Your task to perform on an android device: open app "Lyft - Rideshare, Bikes, Scooters & Transit" (install if not already installed) and go to login screen Image 0: 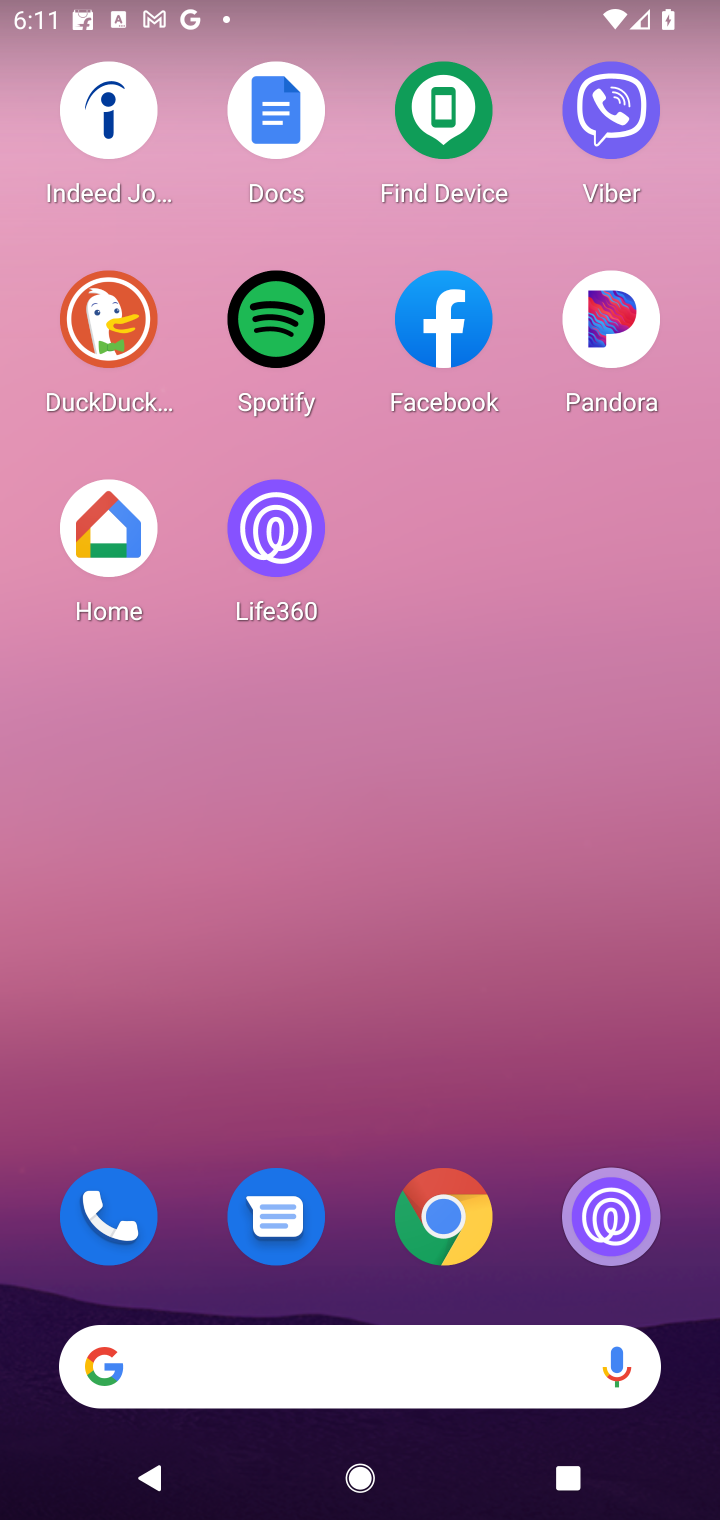
Step 0: drag from (405, 844) to (419, 117)
Your task to perform on an android device: open app "Lyft - Rideshare, Bikes, Scooters & Transit" (install if not already installed) and go to login screen Image 1: 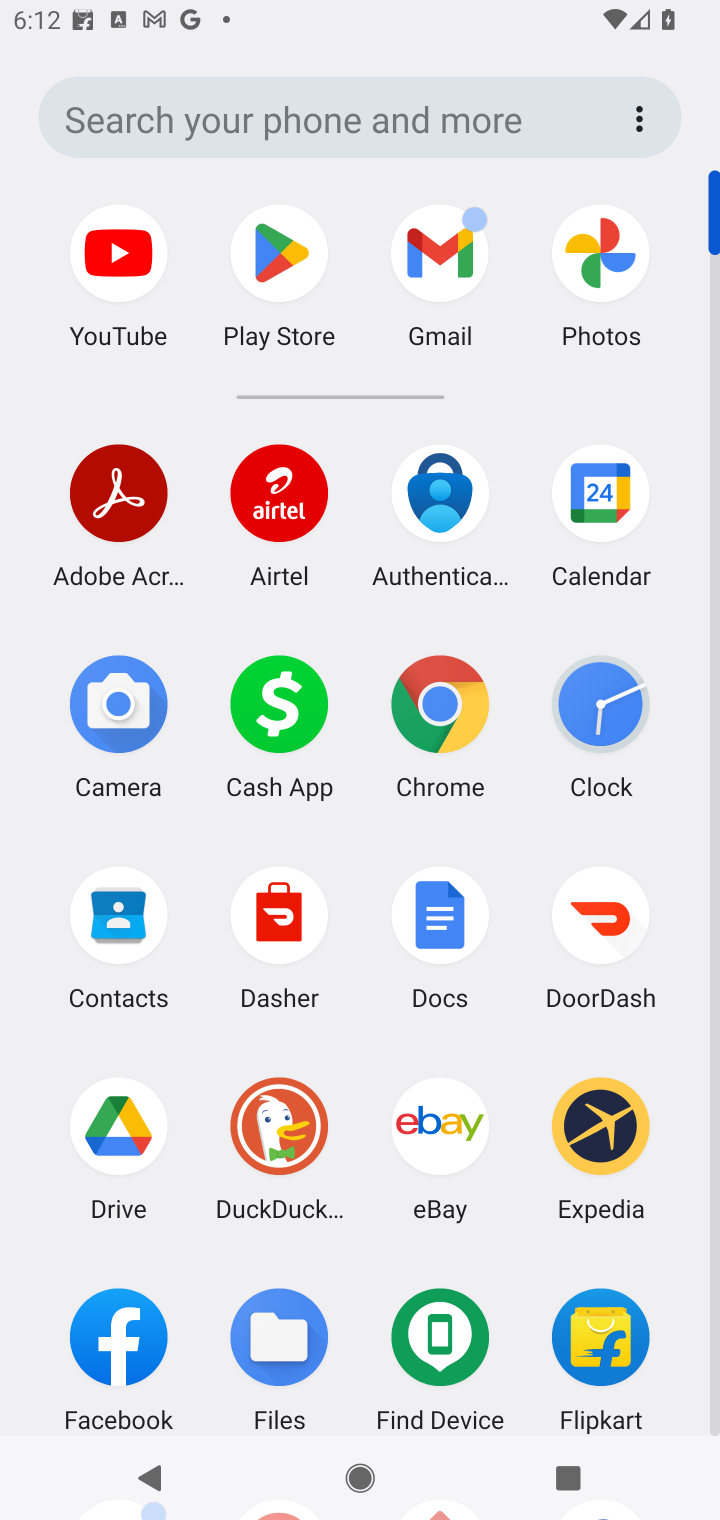
Step 1: click (253, 256)
Your task to perform on an android device: open app "Lyft - Rideshare, Bikes, Scooters & Transit" (install if not already installed) and go to login screen Image 2: 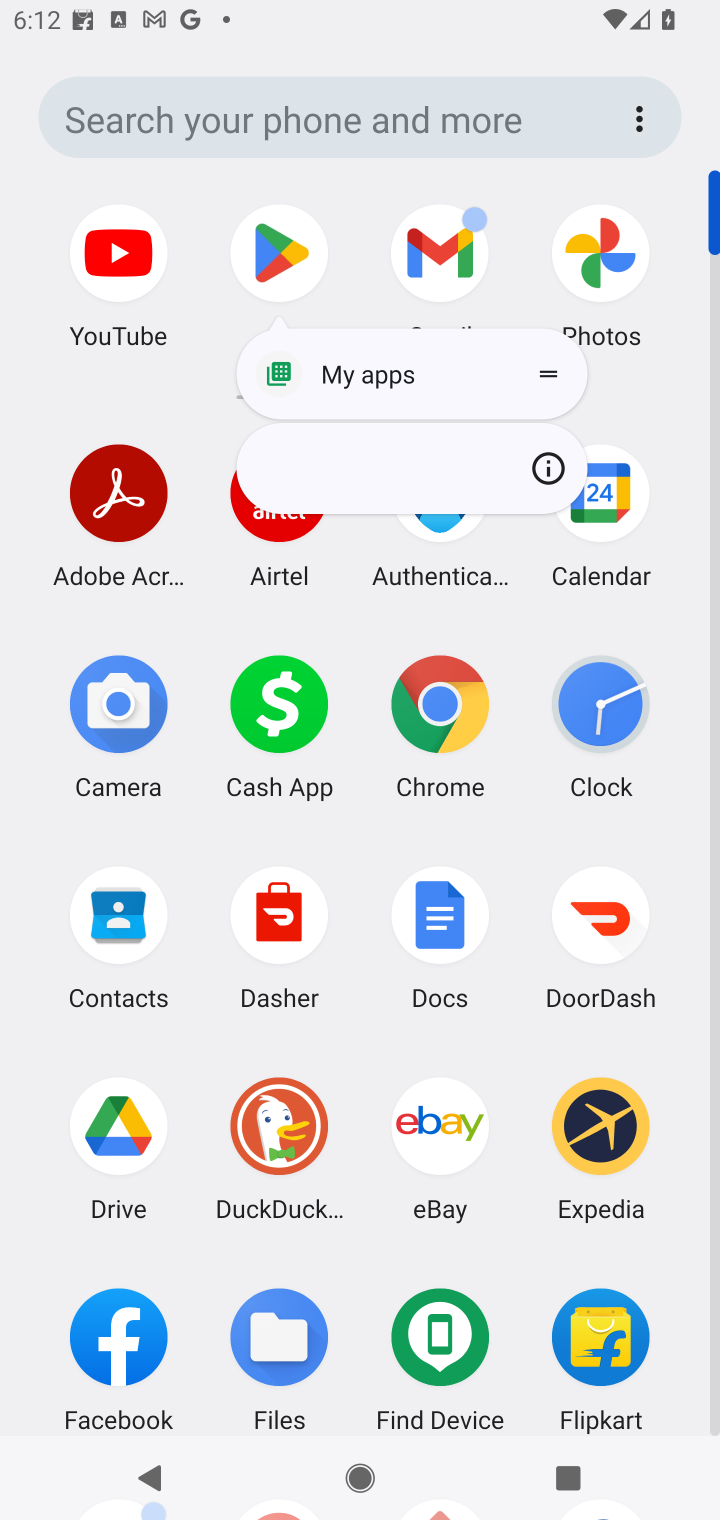
Step 2: click (272, 266)
Your task to perform on an android device: open app "Lyft - Rideshare, Bikes, Scooters & Transit" (install if not already installed) and go to login screen Image 3: 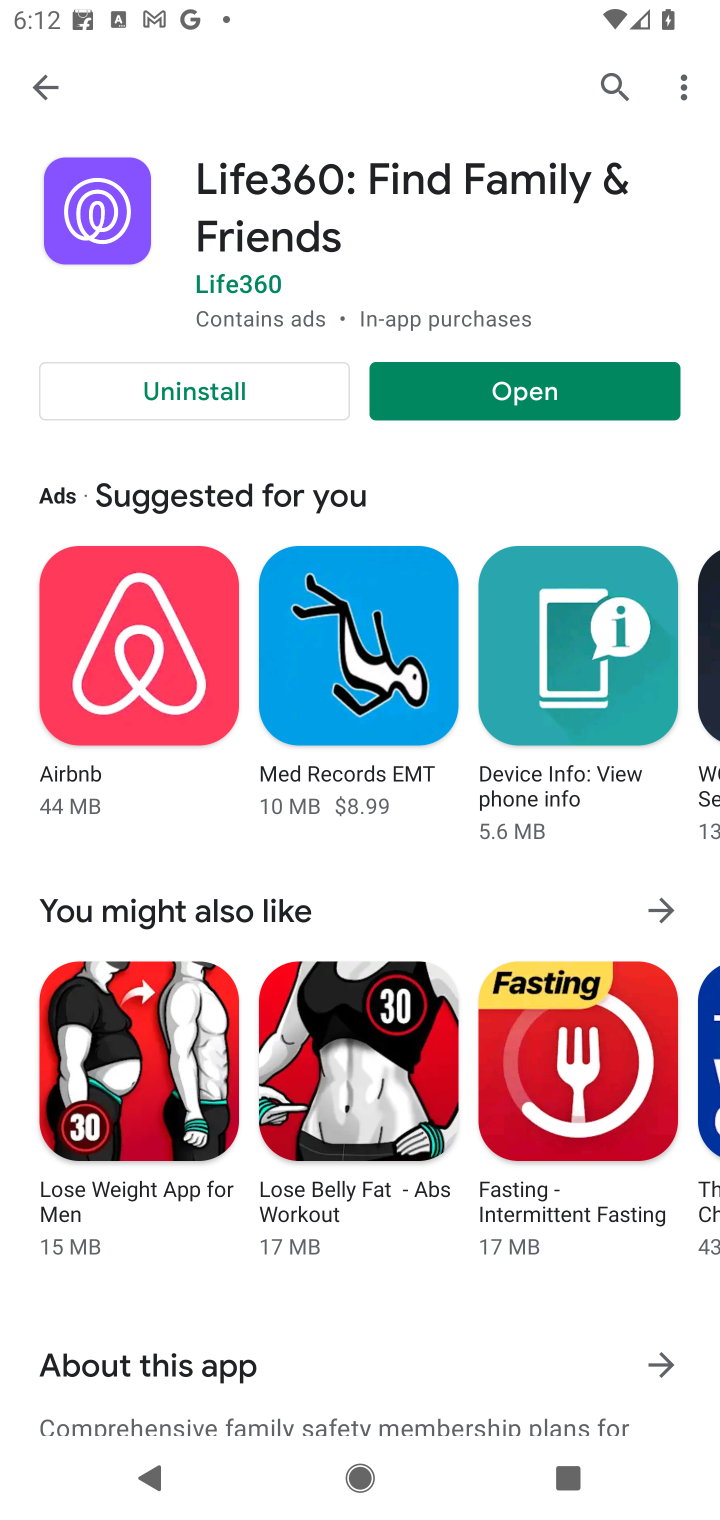
Step 3: click (616, 80)
Your task to perform on an android device: open app "Lyft - Rideshare, Bikes, Scooters & Transit" (install if not already installed) and go to login screen Image 4: 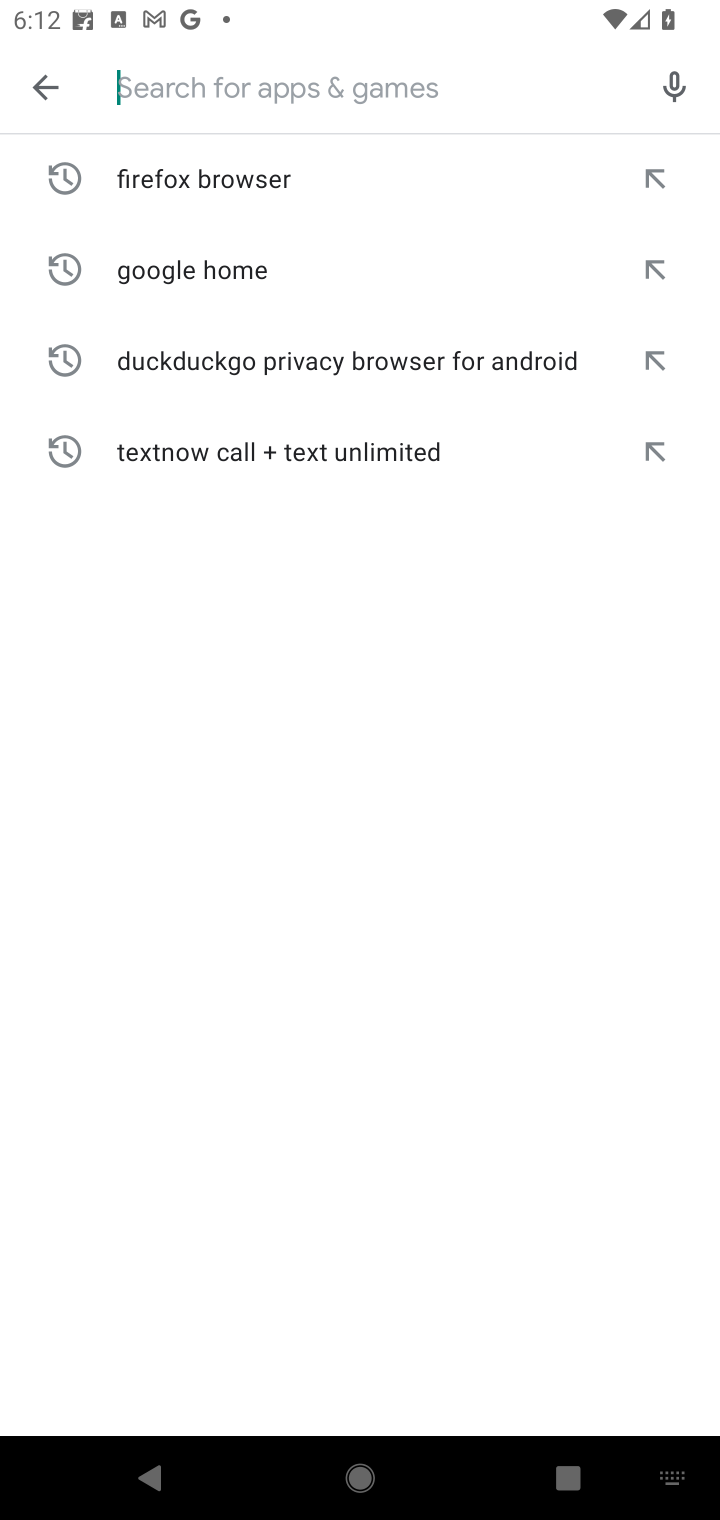
Step 4: type "Lyft - Rideshare, Bikes, Scooters & Transit"
Your task to perform on an android device: open app "Lyft - Rideshare, Bikes, Scooters & Transit" (install if not already installed) and go to login screen Image 5: 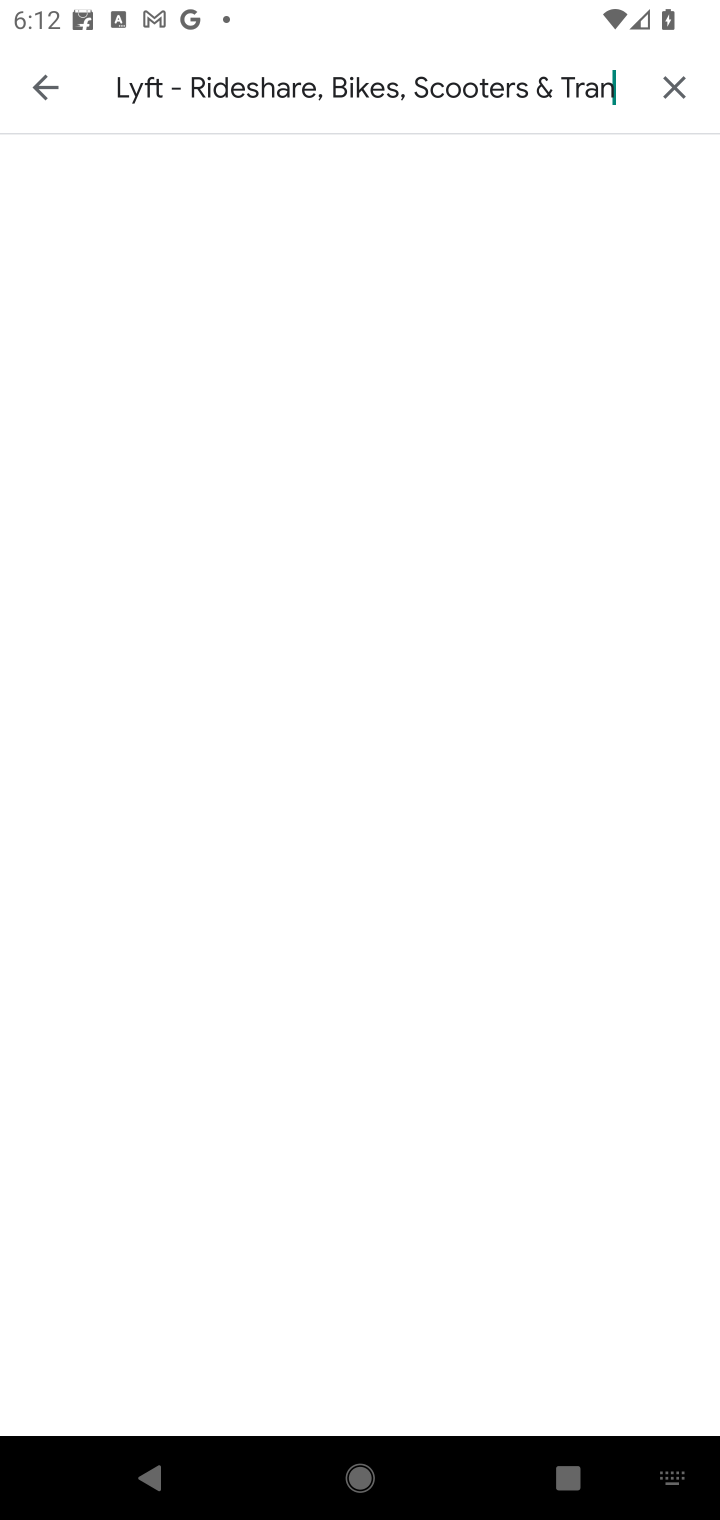
Step 5: type ""
Your task to perform on an android device: open app "Lyft - Rideshare, Bikes, Scooters & Transit" (install if not already installed) and go to login screen Image 6: 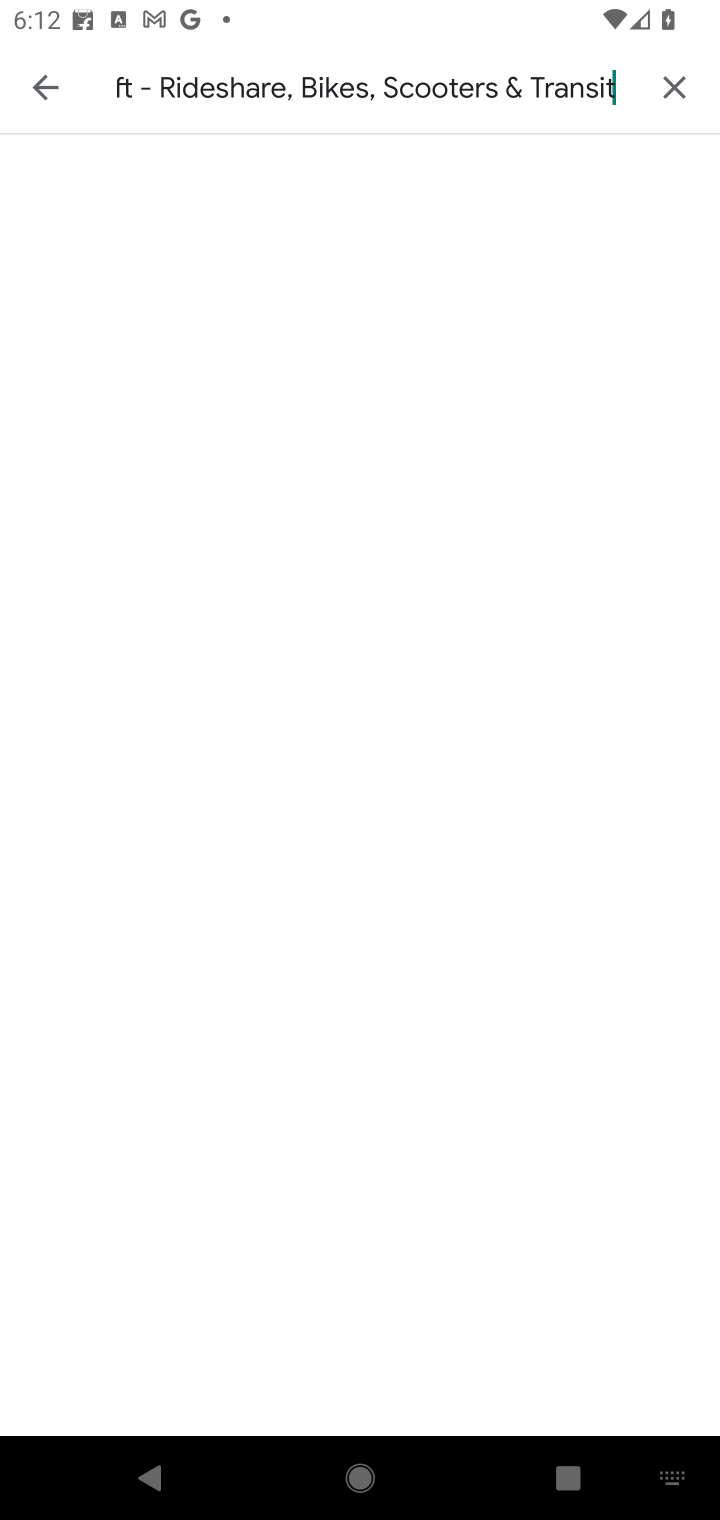
Step 6: click (668, 93)
Your task to perform on an android device: open app "Lyft - Rideshare, Bikes, Scooters & Transit" (install if not already installed) and go to login screen Image 7: 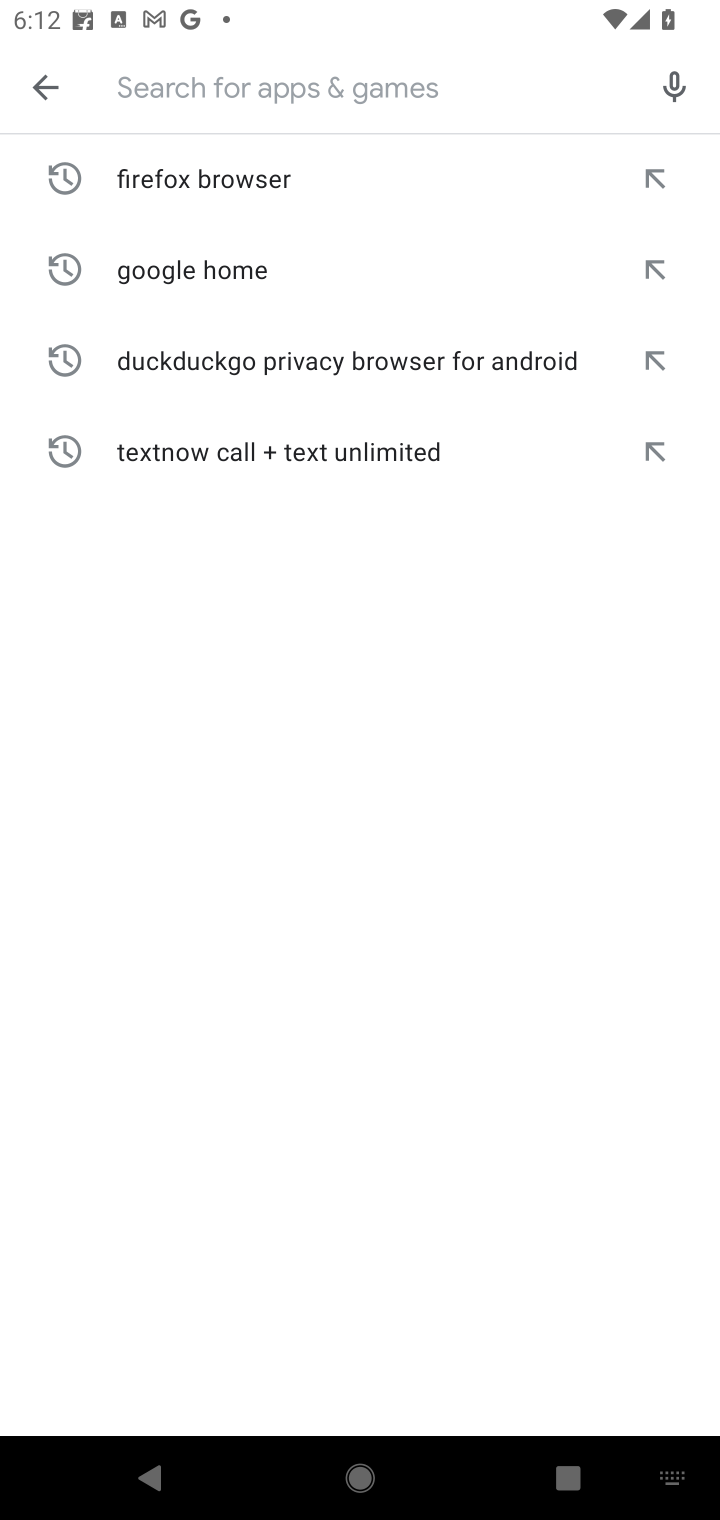
Step 7: type "Lyft"
Your task to perform on an android device: open app "Lyft - Rideshare, Bikes, Scooters & Transit" (install if not already installed) and go to login screen Image 8: 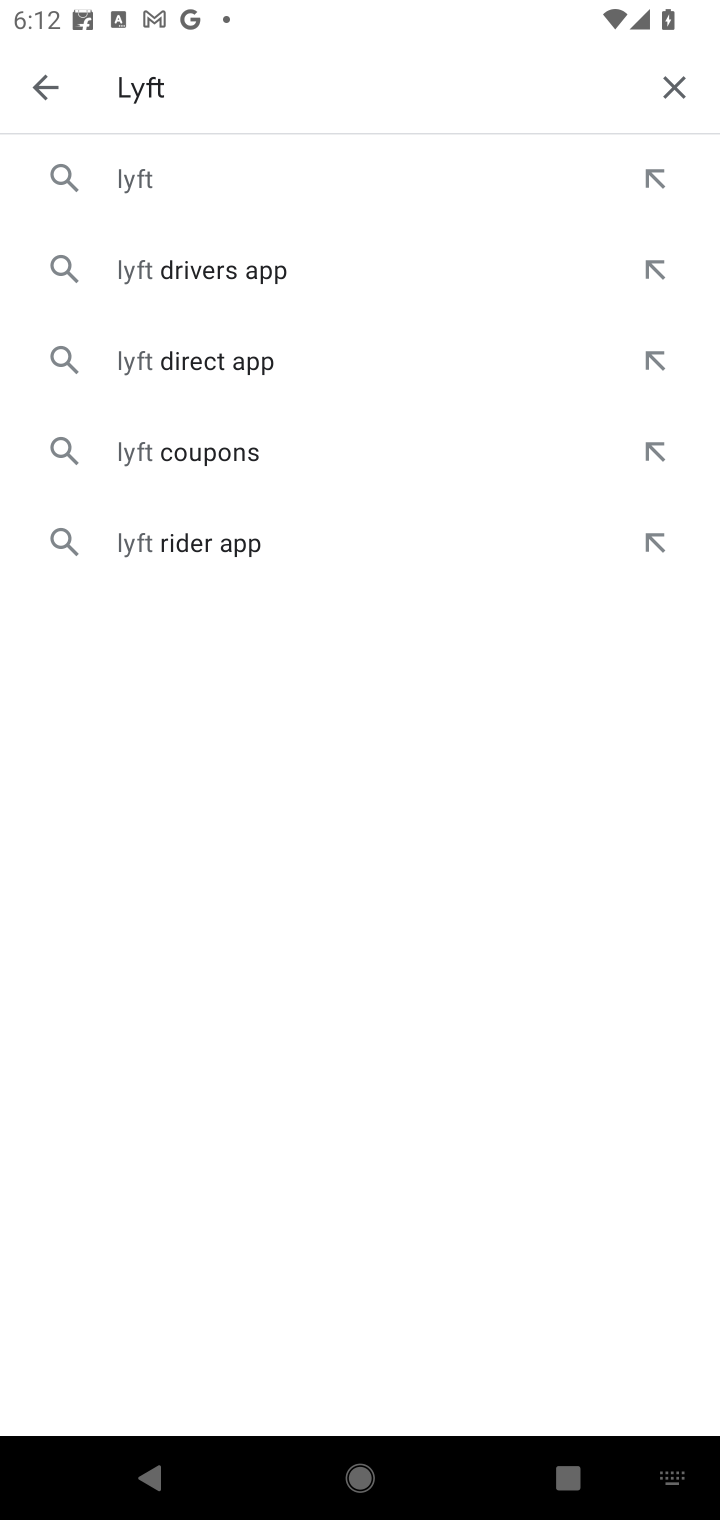
Step 8: click (181, 182)
Your task to perform on an android device: open app "Lyft - Rideshare, Bikes, Scooters & Transit" (install if not already installed) and go to login screen Image 9: 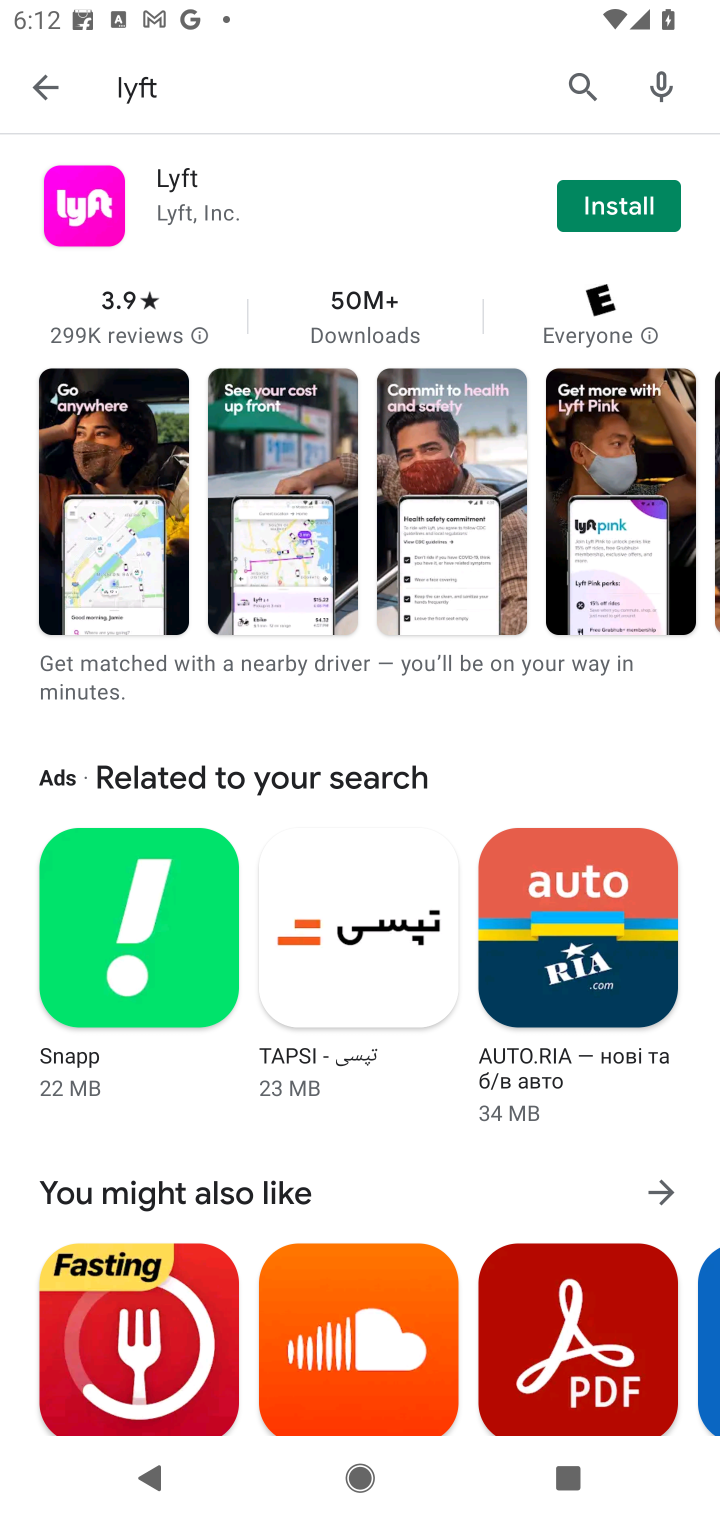
Step 9: click (615, 207)
Your task to perform on an android device: open app "Lyft - Rideshare, Bikes, Scooters & Transit" (install if not already installed) and go to login screen Image 10: 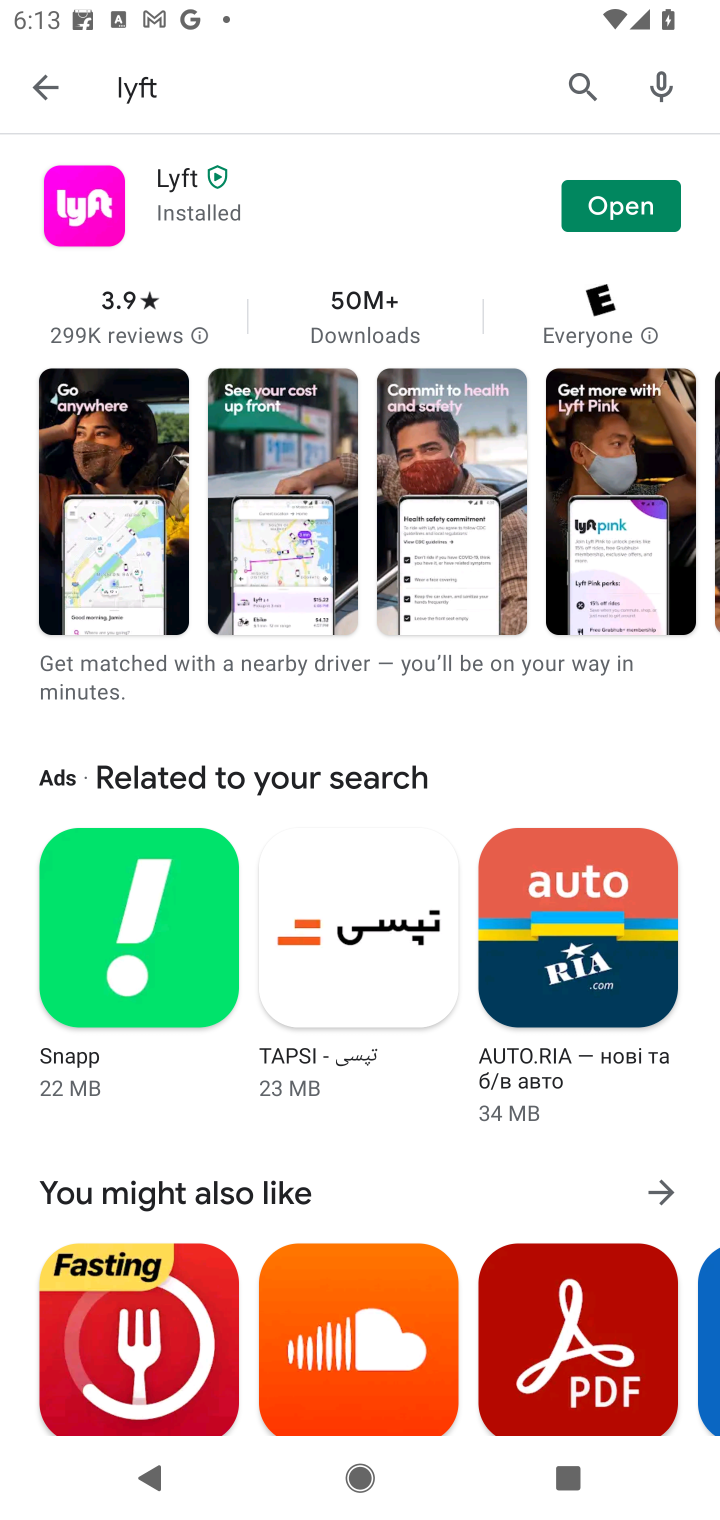
Step 10: click (613, 211)
Your task to perform on an android device: open app "Lyft - Rideshare, Bikes, Scooters & Transit" (install if not already installed) and go to login screen Image 11: 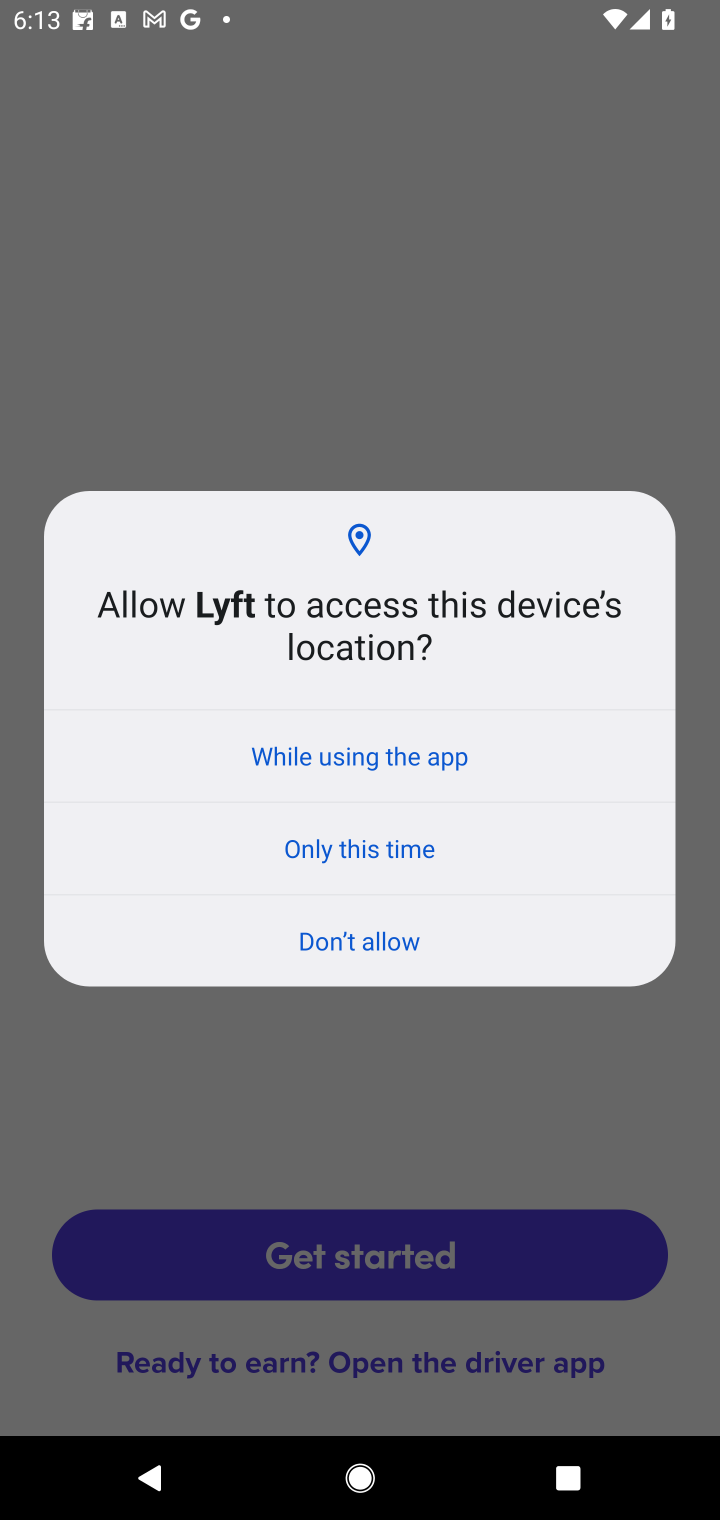
Step 11: task complete